Your task to perform on an android device: install app "Facebook Lite" Image 0: 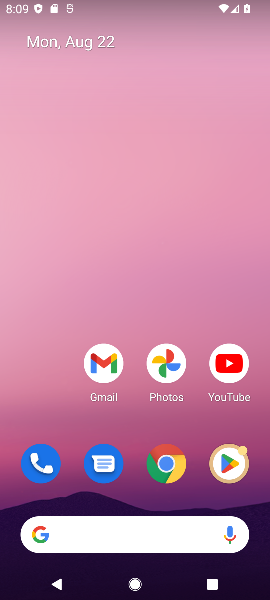
Step 0: drag from (129, 441) to (141, 35)
Your task to perform on an android device: install app "Facebook Lite" Image 1: 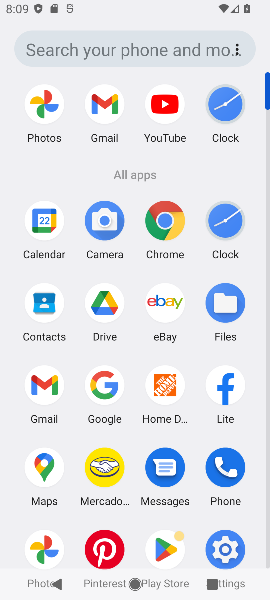
Step 1: click (158, 548)
Your task to perform on an android device: install app "Facebook Lite" Image 2: 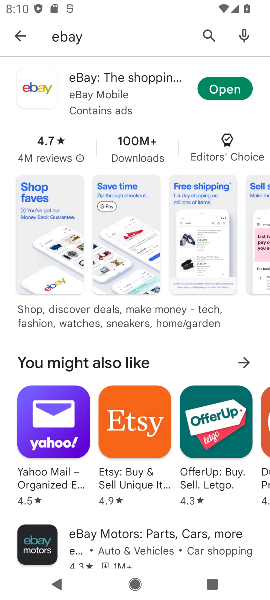
Step 2: press home button
Your task to perform on an android device: install app "Facebook Lite" Image 3: 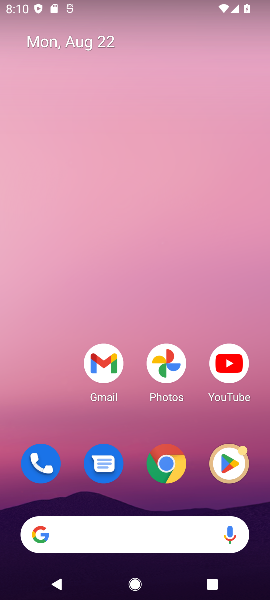
Step 3: click (226, 461)
Your task to perform on an android device: install app "Facebook Lite" Image 4: 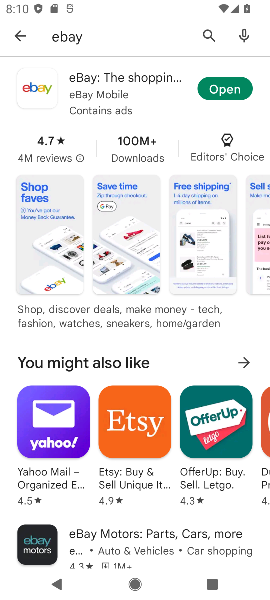
Step 4: click (21, 38)
Your task to perform on an android device: install app "Facebook Lite" Image 5: 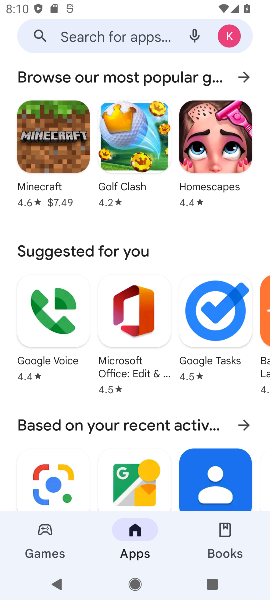
Step 5: click (70, 33)
Your task to perform on an android device: install app "Facebook Lite" Image 6: 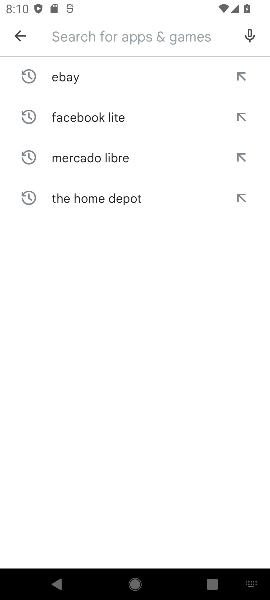
Step 6: click (78, 117)
Your task to perform on an android device: install app "Facebook Lite" Image 7: 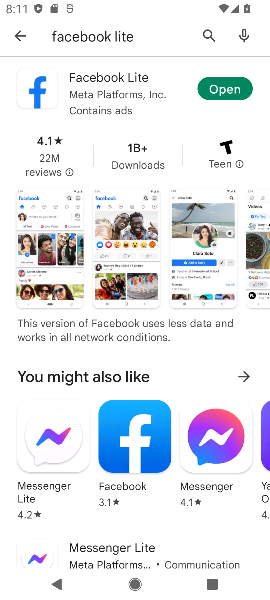
Step 7: click (231, 89)
Your task to perform on an android device: install app "Facebook Lite" Image 8: 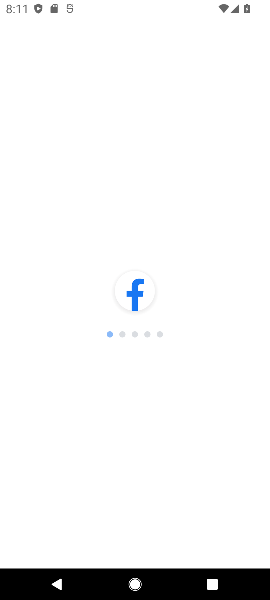
Step 8: task complete